Your task to perform on an android device: clear history in the chrome app Image 0: 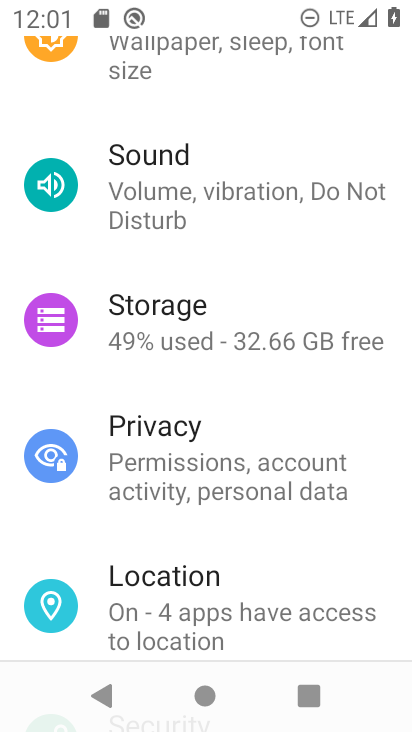
Step 0: press home button
Your task to perform on an android device: clear history in the chrome app Image 1: 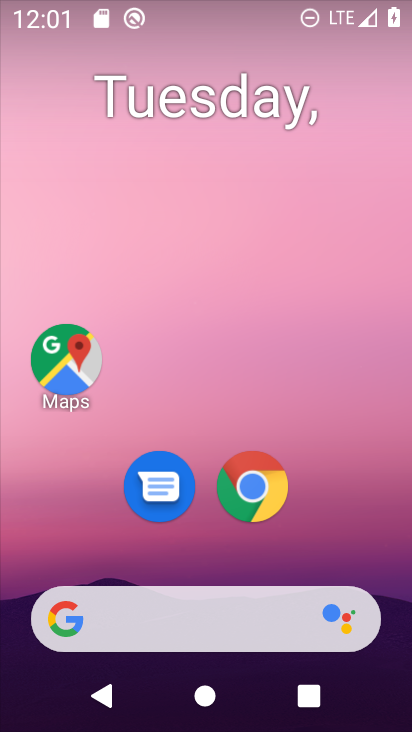
Step 1: click (258, 496)
Your task to perform on an android device: clear history in the chrome app Image 2: 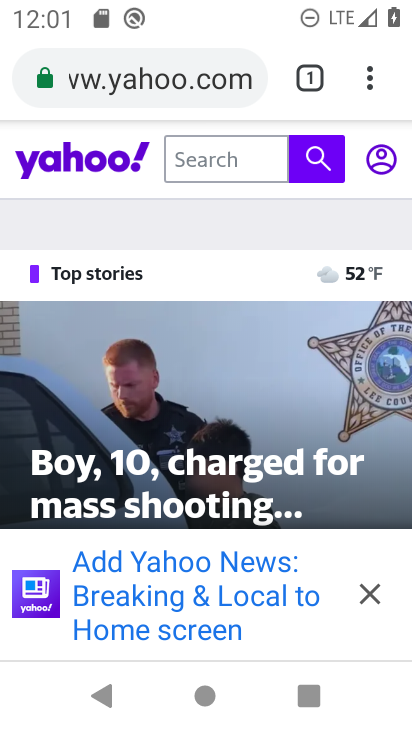
Step 2: click (364, 77)
Your task to perform on an android device: clear history in the chrome app Image 3: 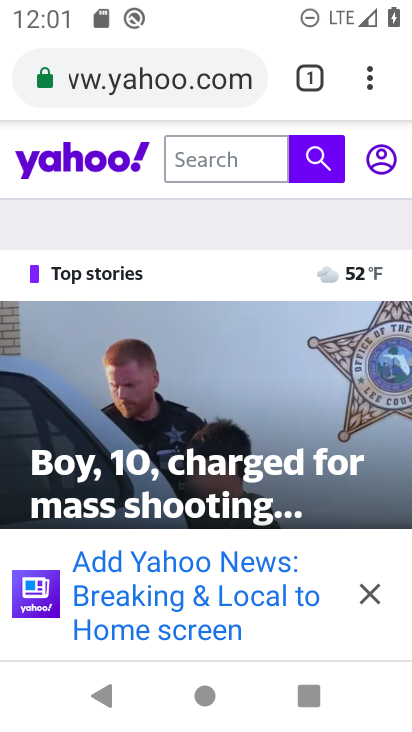
Step 3: click (374, 75)
Your task to perform on an android device: clear history in the chrome app Image 4: 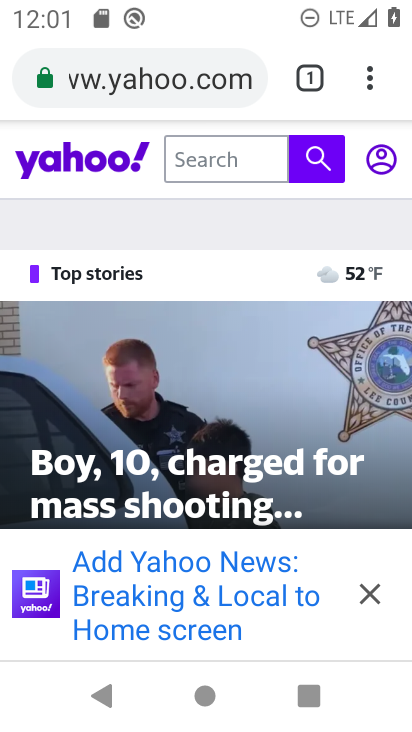
Step 4: click (364, 83)
Your task to perform on an android device: clear history in the chrome app Image 5: 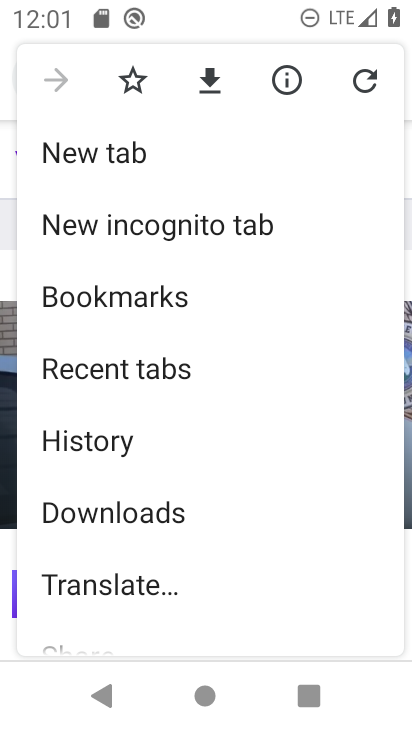
Step 5: click (135, 442)
Your task to perform on an android device: clear history in the chrome app Image 6: 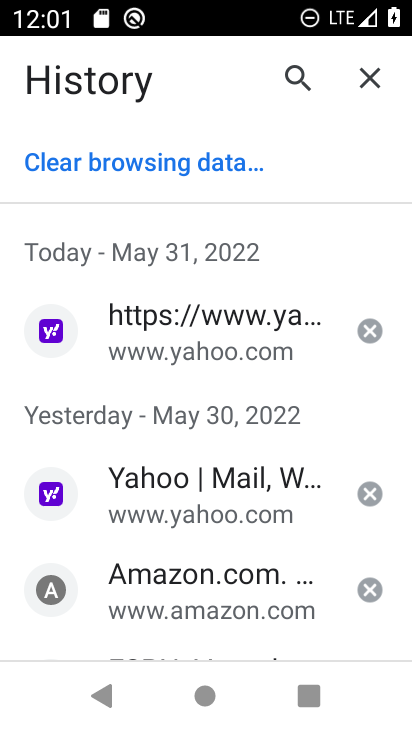
Step 6: click (152, 169)
Your task to perform on an android device: clear history in the chrome app Image 7: 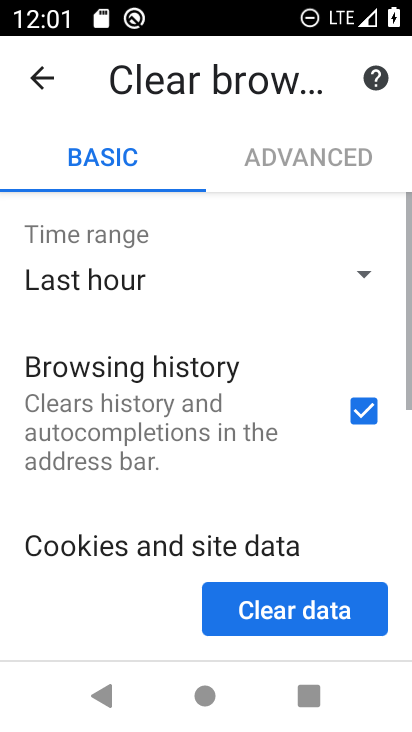
Step 7: click (337, 601)
Your task to perform on an android device: clear history in the chrome app Image 8: 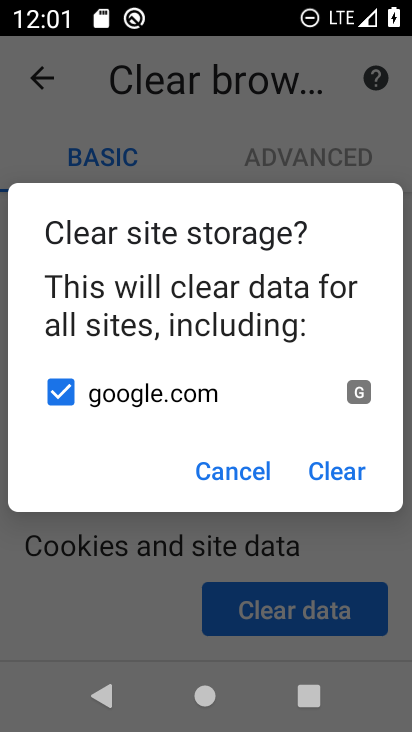
Step 8: click (349, 471)
Your task to perform on an android device: clear history in the chrome app Image 9: 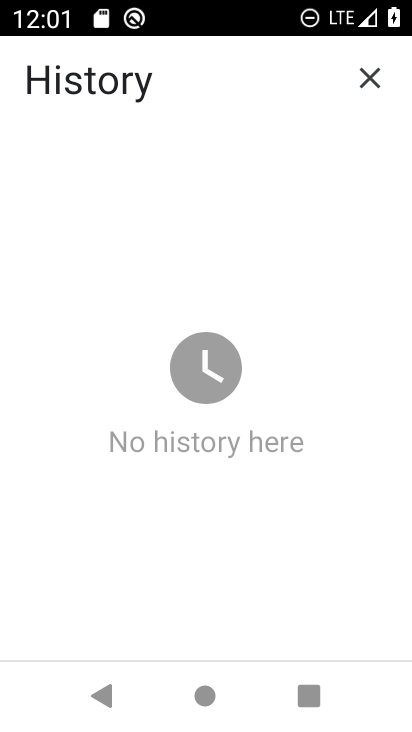
Step 9: task complete